Your task to perform on an android device: Search for logitech g502 on target.com, select the first entry, add it to the cart, then select checkout. Image 0: 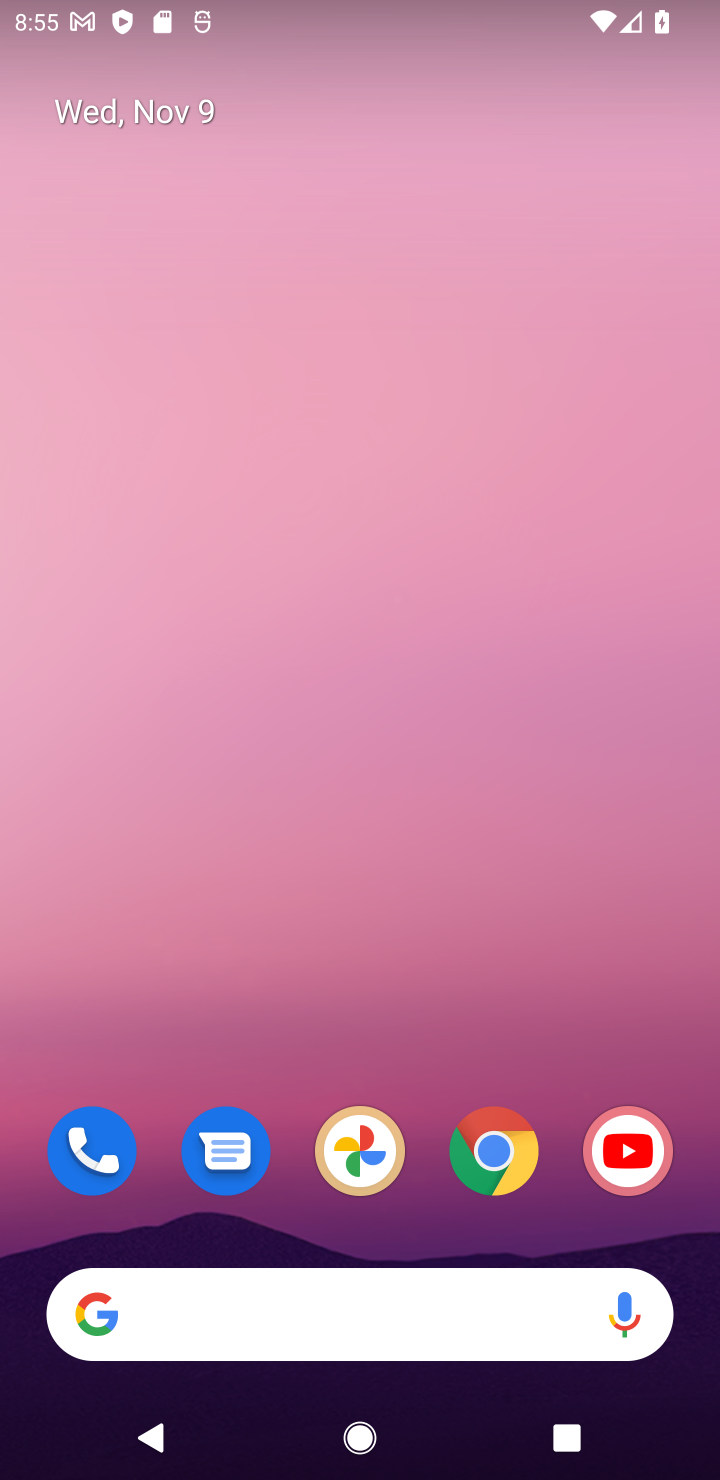
Step 0: click (499, 1165)
Your task to perform on an android device: Search for logitech g502 on target.com, select the first entry, add it to the cart, then select checkout. Image 1: 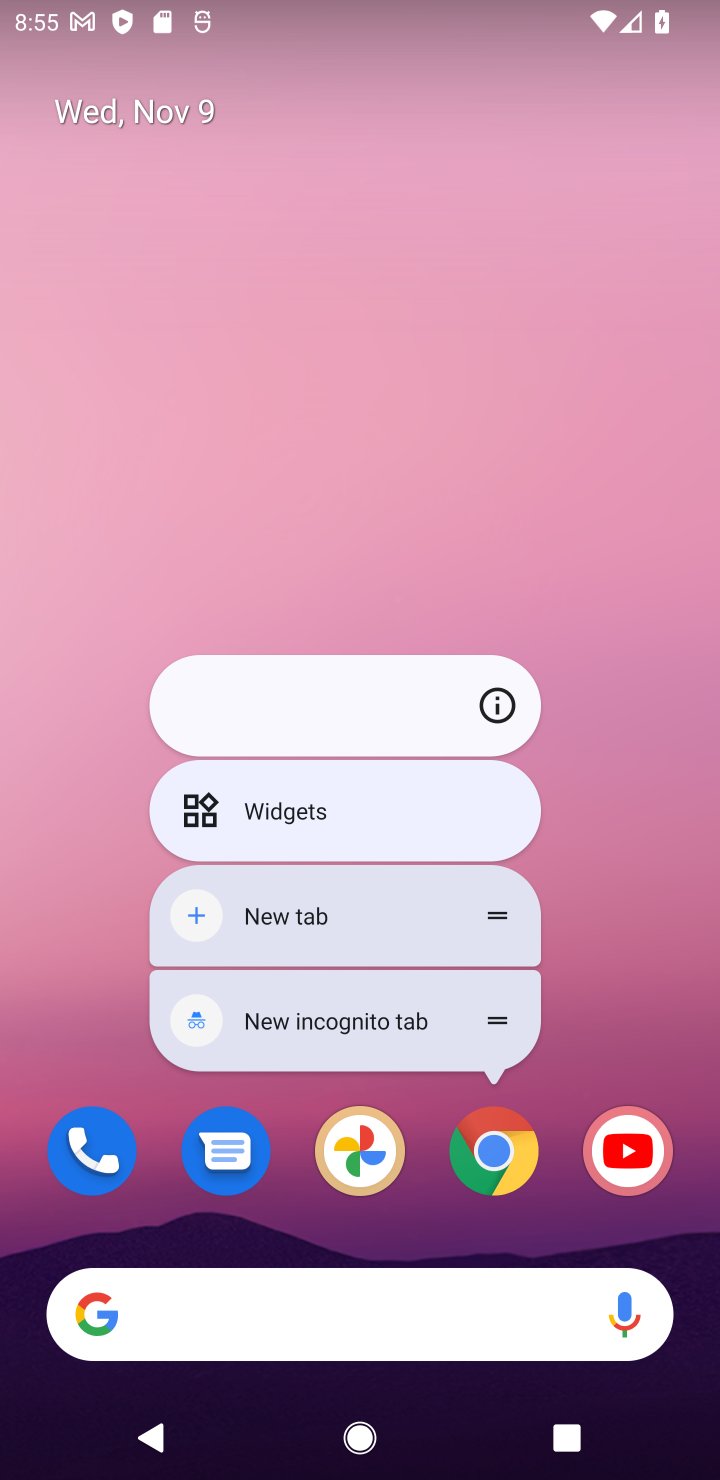
Step 1: click (499, 1165)
Your task to perform on an android device: Search for logitech g502 on target.com, select the first entry, add it to the cart, then select checkout. Image 2: 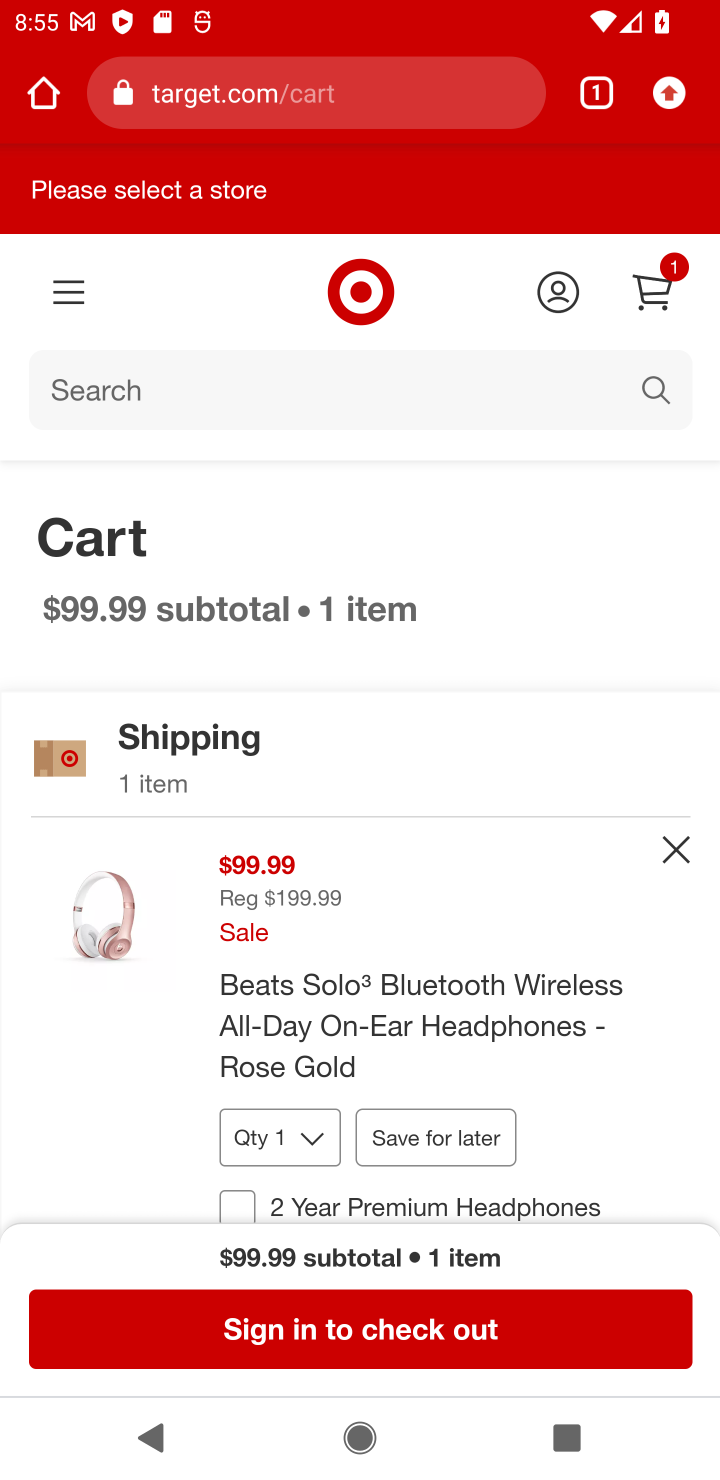
Step 2: click (361, 395)
Your task to perform on an android device: Search for logitech g502 on target.com, select the first entry, add it to the cart, then select checkout. Image 3: 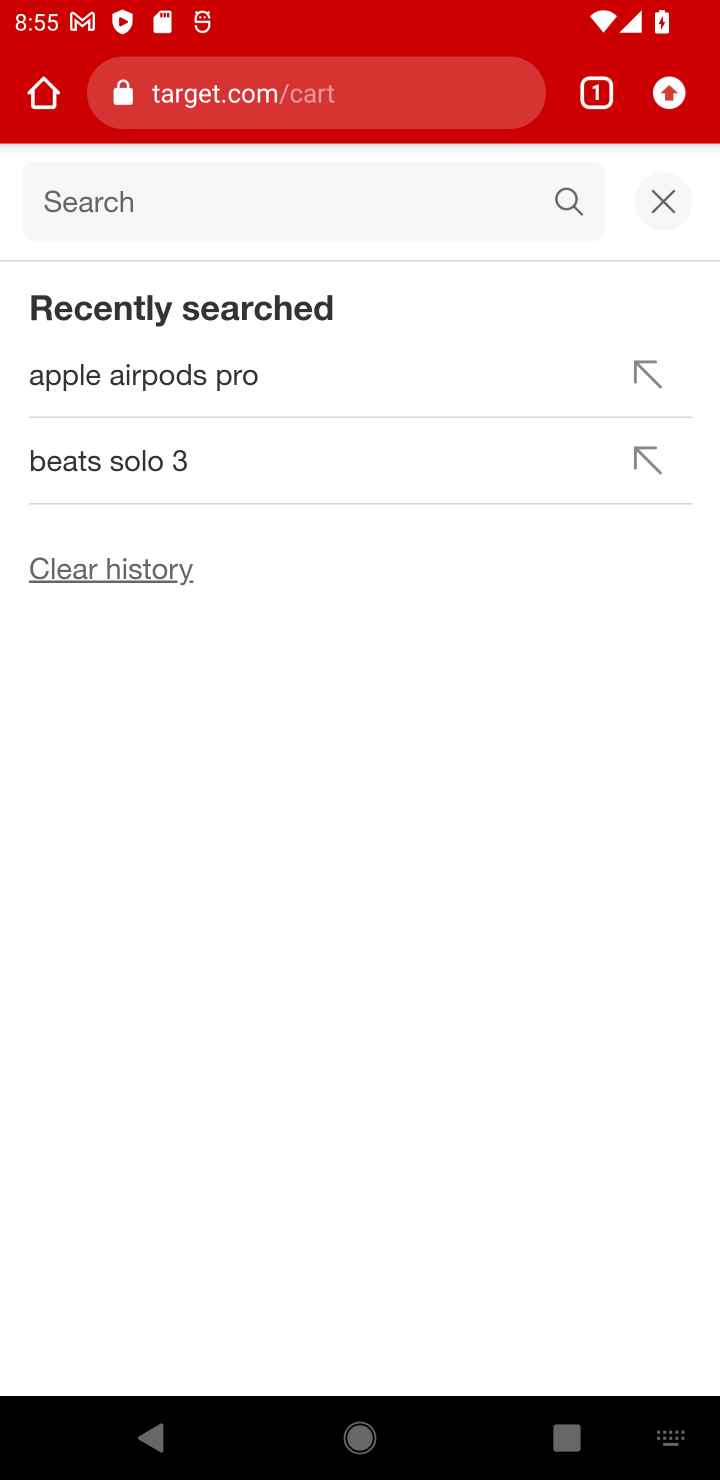
Step 3: type "logitech g502"
Your task to perform on an android device: Search for logitech g502 on target.com, select the first entry, add it to the cart, then select checkout. Image 4: 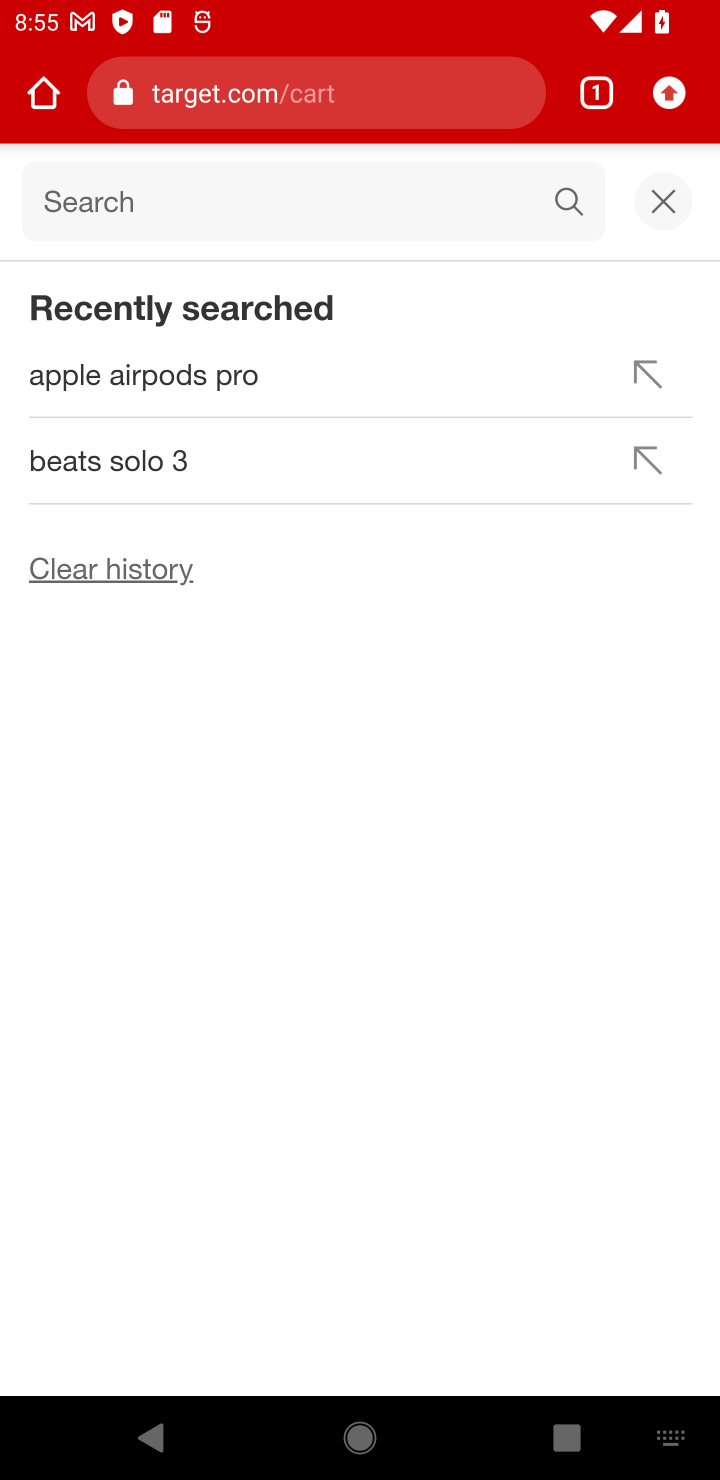
Step 4: press enter
Your task to perform on an android device: Search for logitech g502 on target.com, select the first entry, add it to the cart, then select checkout. Image 5: 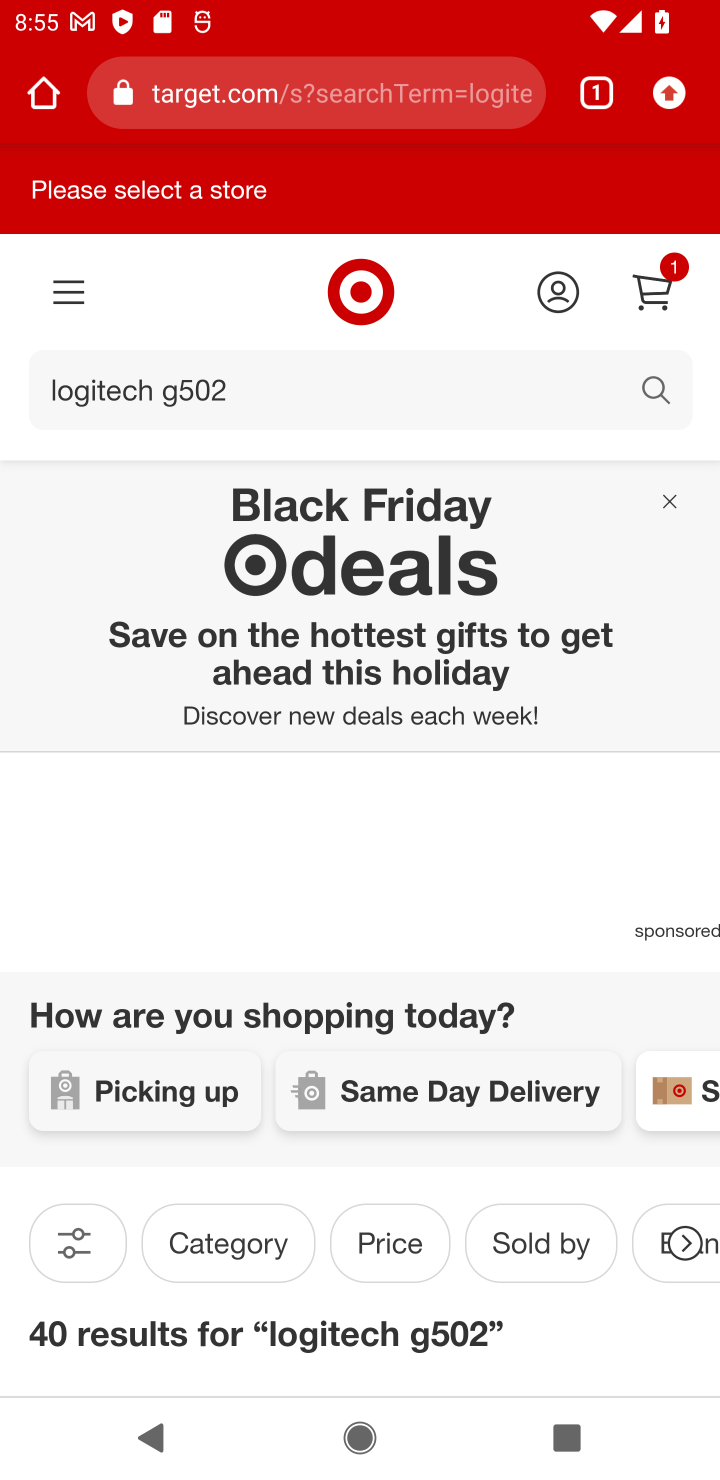
Step 5: drag from (400, 1199) to (568, 330)
Your task to perform on an android device: Search for logitech g502 on target.com, select the first entry, add it to the cart, then select checkout. Image 6: 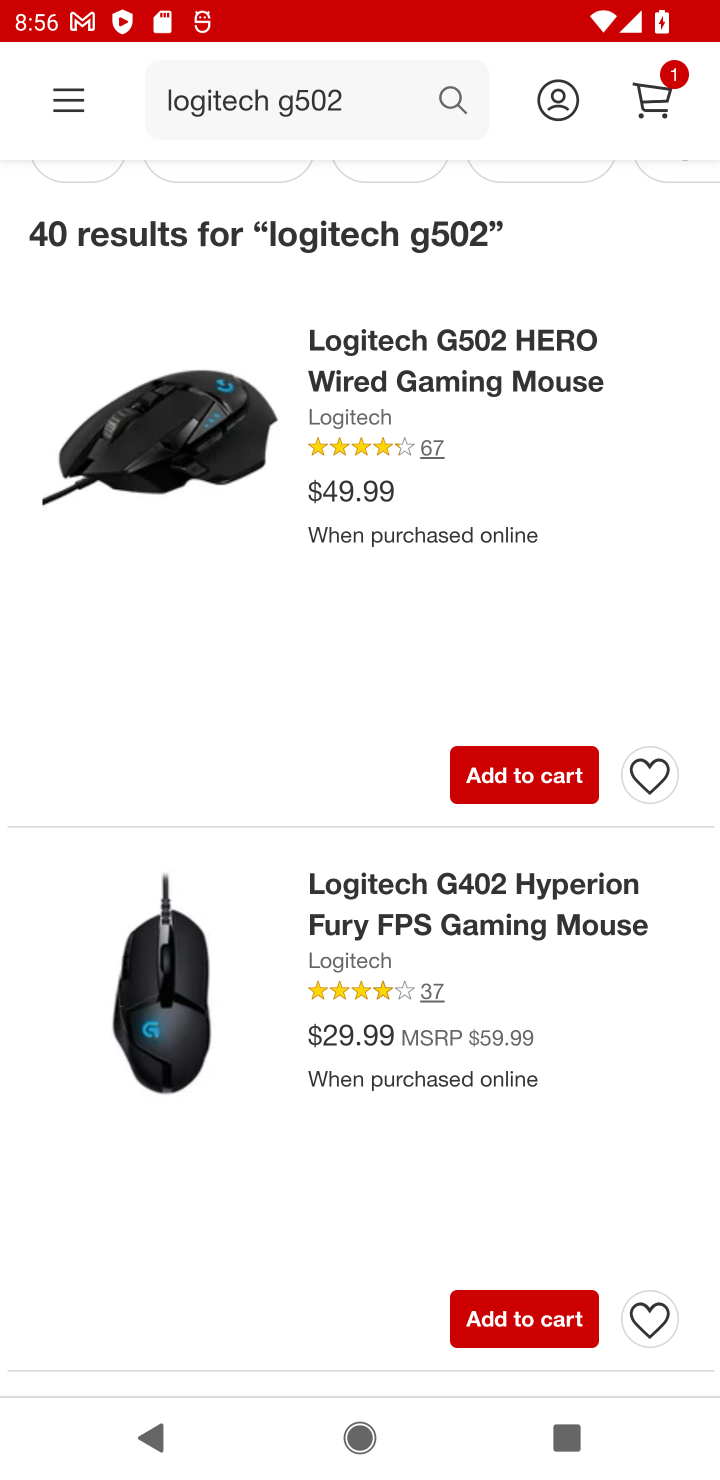
Step 6: click (498, 774)
Your task to perform on an android device: Search for logitech g502 on target.com, select the first entry, add it to the cart, then select checkout. Image 7: 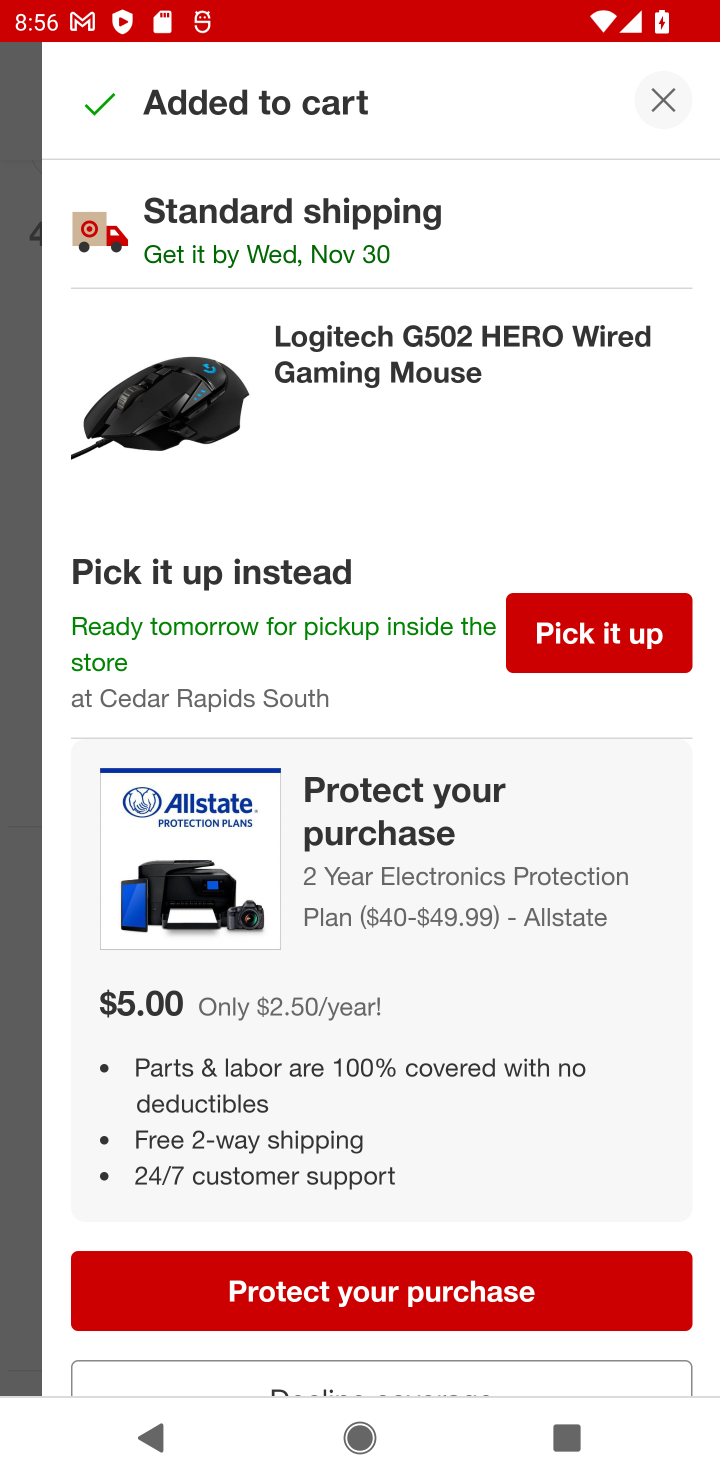
Step 7: drag from (403, 1122) to (523, 438)
Your task to perform on an android device: Search for logitech g502 on target.com, select the first entry, add it to the cart, then select checkout. Image 8: 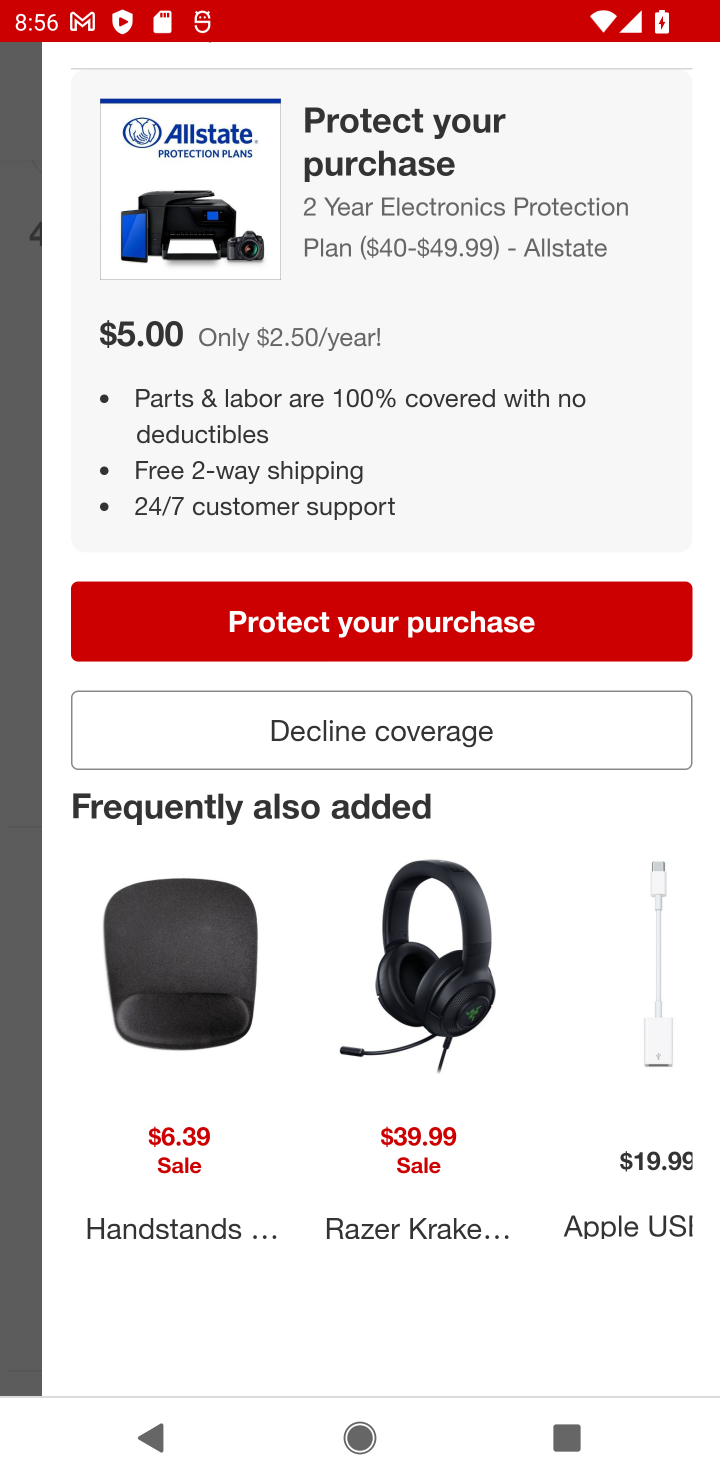
Step 8: click (387, 610)
Your task to perform on an android device: Search for logitech g502 on target.com, select the first entry, add it to the cart, then select checkout. Image 9: 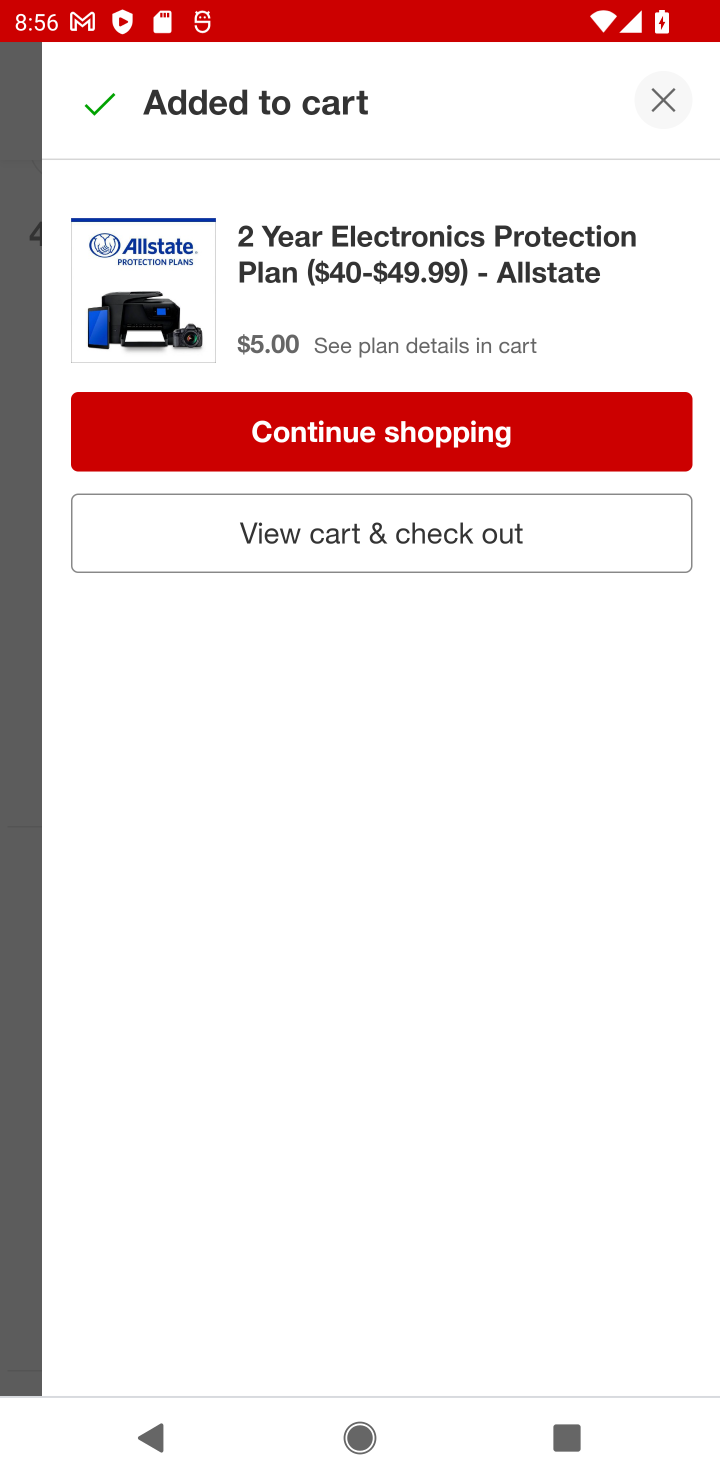
Step 9: click (394, 544)
Your task to perform on an android device: Search for logitech g502 on target.com, select the first entry, add it to the cart, then select checkout. Image 10: 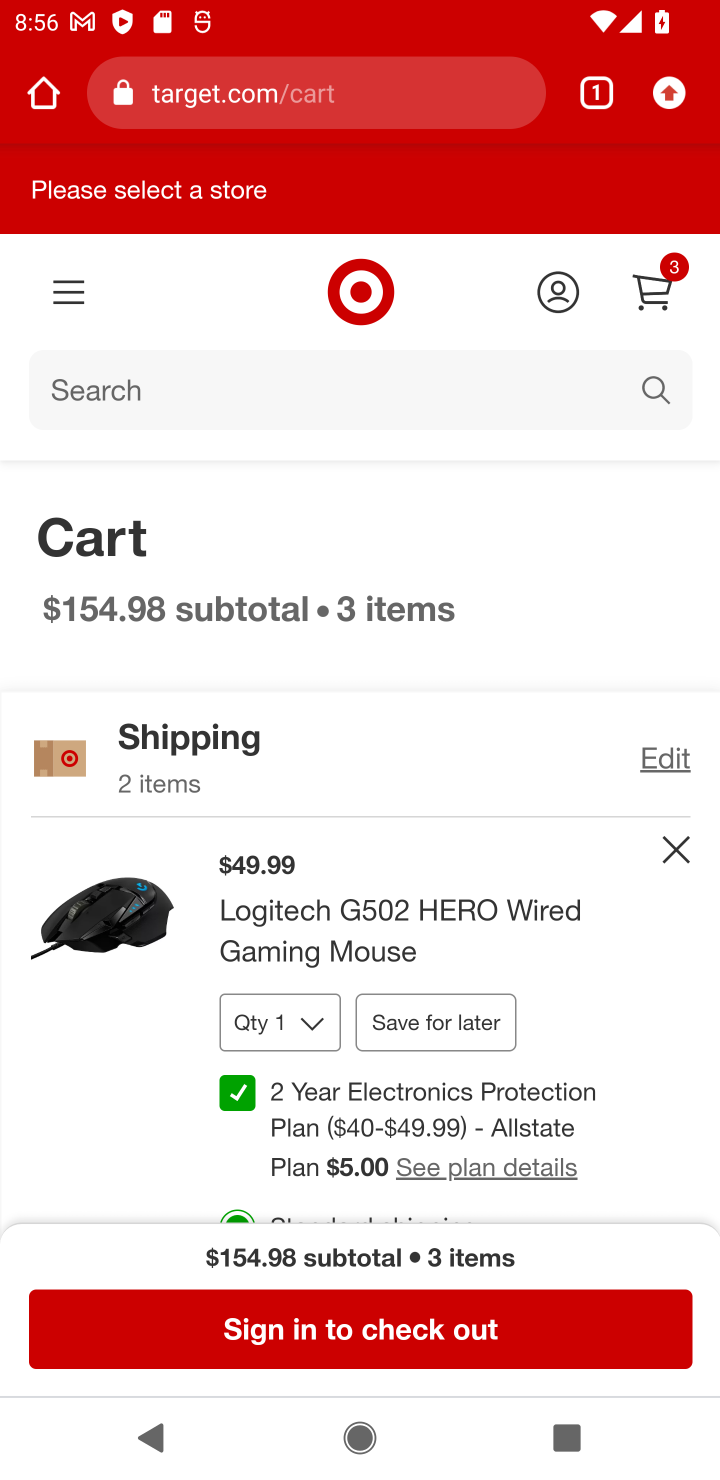
Step 10: click (452, 1340)
Your task to perform on an android device: Search for logitech g502 on target.com, select the first entry, add it to the cart, then select checkout. Image 11: 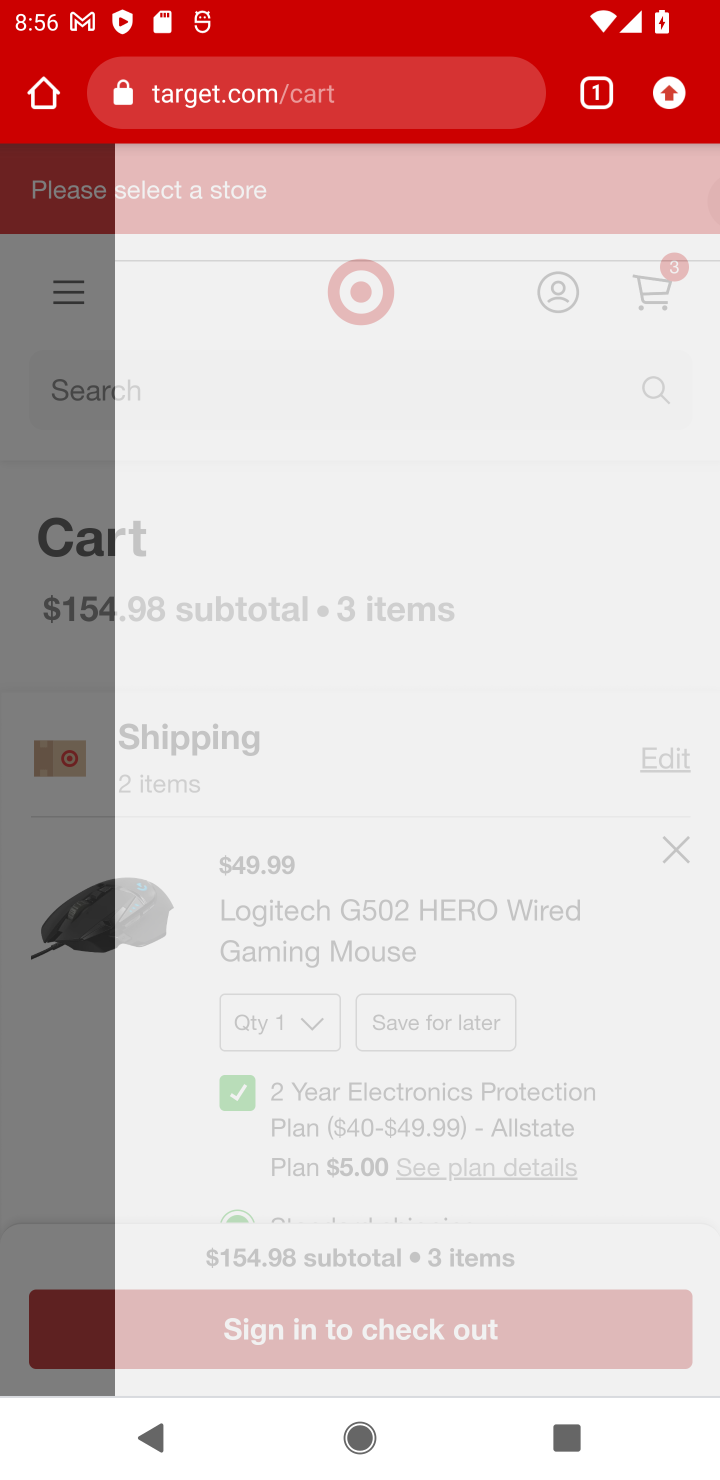
Step 11: task complete